Your task to perform on an android device: Open location settings Image 0: 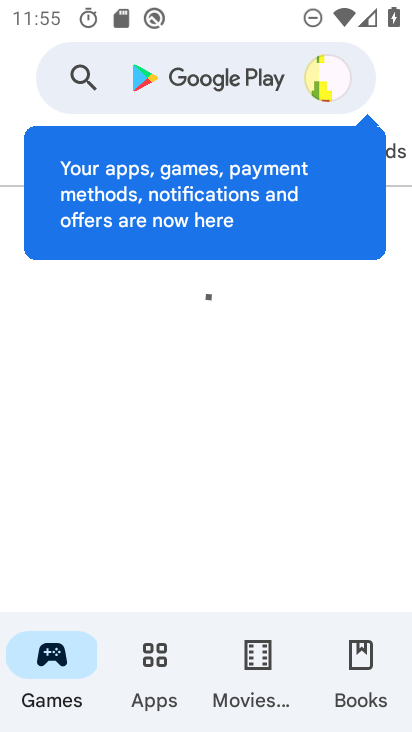
Step 0: press home button
Your task to perform on an android device: Open location settings Image 1: 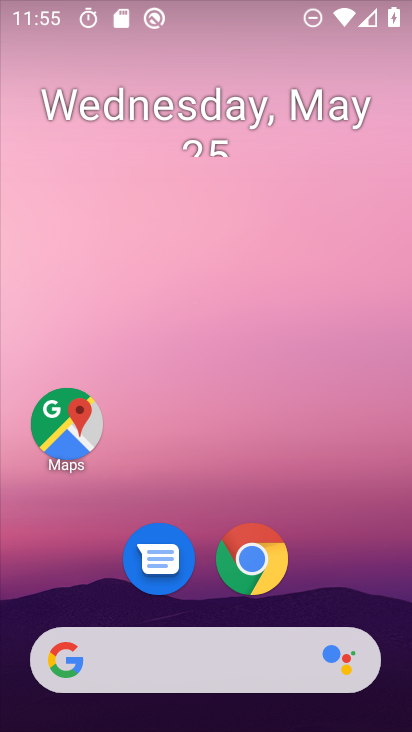
Step 1: drag from (364, 557) to (342, 146)
Your task to perform on an android device: Open location settings Image 2: 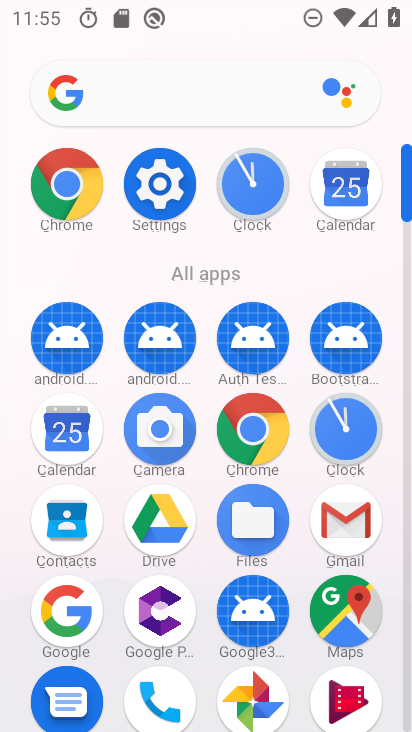
Step 2: click (142, 206)
Your task to perform on an android device: Open location settings Image 3: 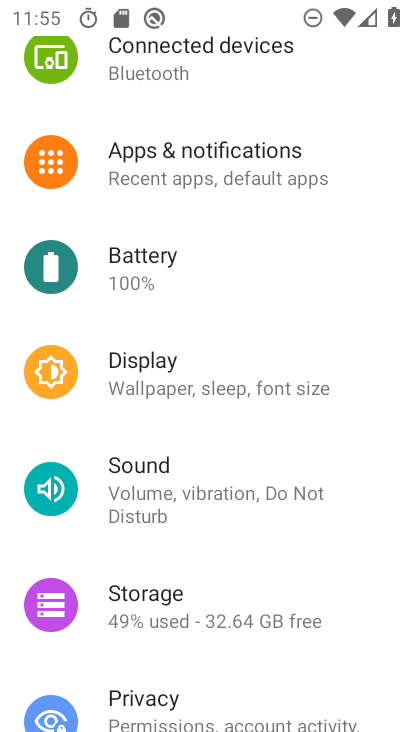
Step 3: drag from (207, 570) to (231, 314)
Your task to perform on an android device: Open location settings Image 4: 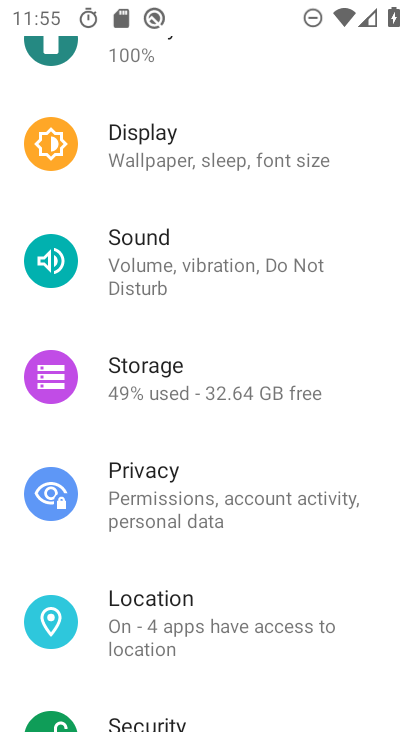
Step 4: click (206, 607)
Your task to perform on an android device: Open location settings Image 5: 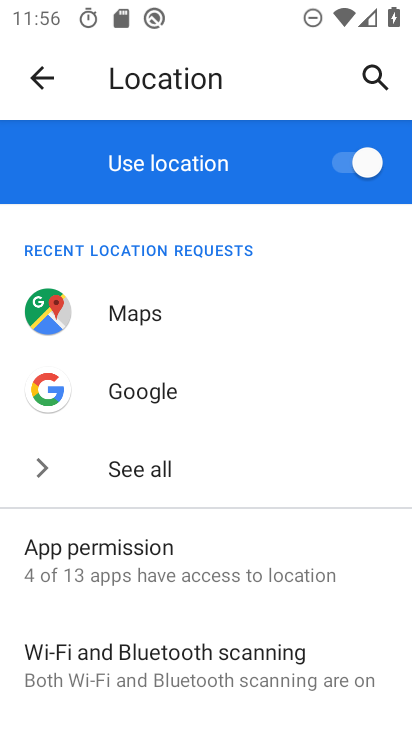
Step 5: task complete